Your task to perform on an android device: Open my contact list Image 0: 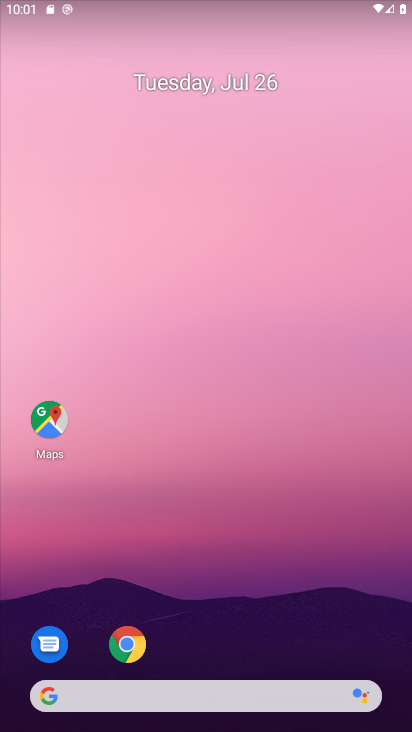
Step 0: drag from (249, 640) to (269, 269)
Your task to perform on an android device: Open my contact list Image 1: 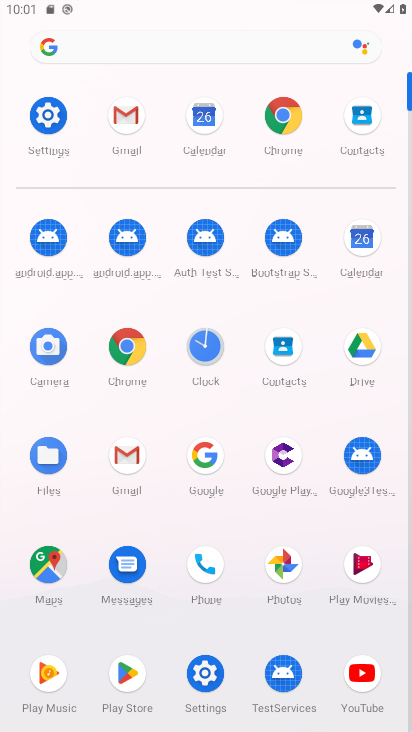
Step 1: click (370, 241)
Your task to perform on an android device: Open my contact list Image 2: 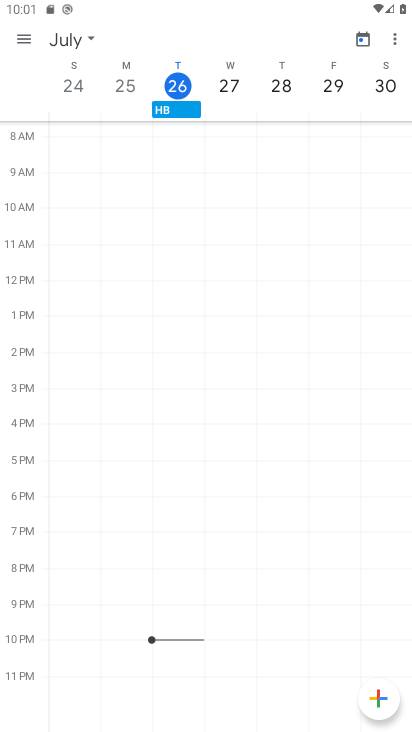
Step 2: press back button
Your task to perform on an android device: Open my contact list Image 3: 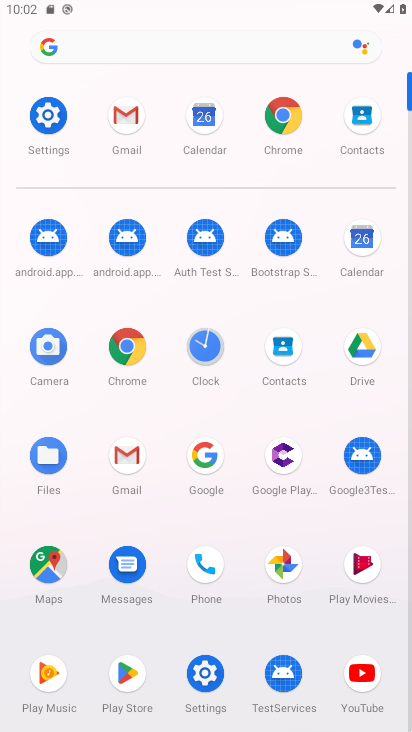
Step 3: click (276, 368)
Your task to perform on an android device: Open my contact list Image 4: 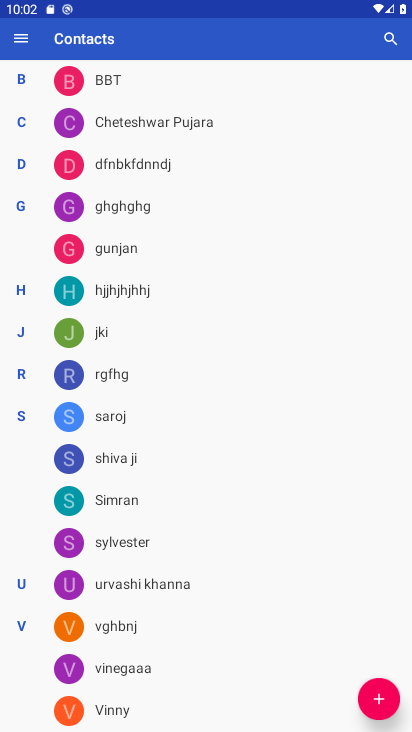
Step 4: task complete